Your task to perform on an android device: What's the weather going to be this weekend? Image 0: 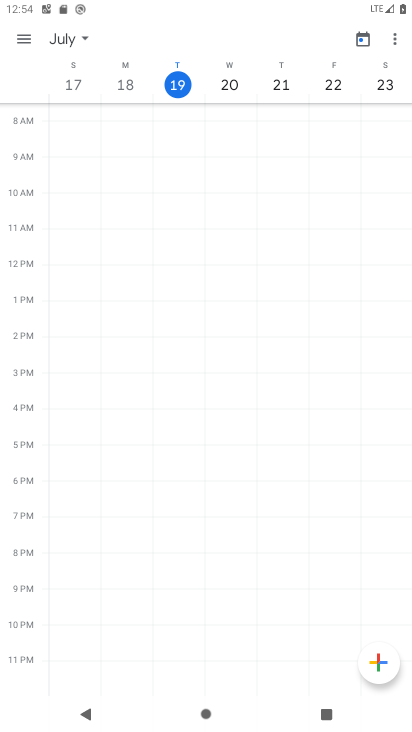
Step 0: press home button
Your task to perform on an android device: What's the weather going to be this weekend? Image 1: 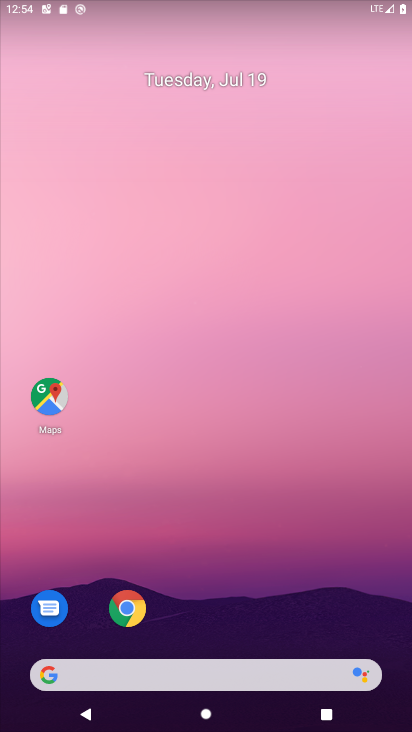
Step 1: drag from (224, 601) to (220, 100)
Your task to perform on an android device: What's the weather going to be this weekend? Image 2: 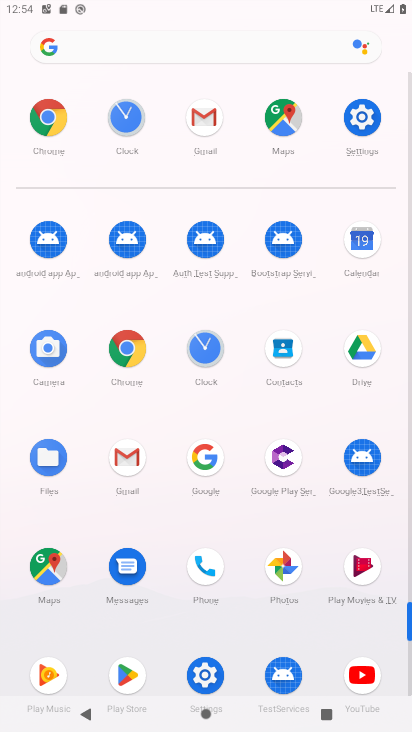
Step 2: click (355, 237)
Your task to perform on an android device: What's the weather going to be this weekend? Image 3: 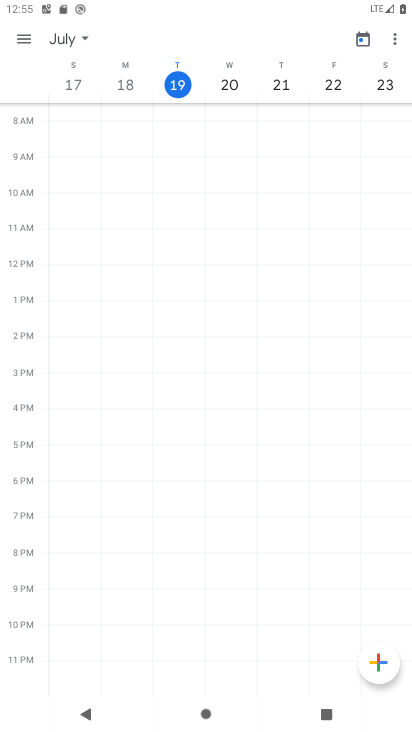
Step 3: press home button
Your task to perform on an android device: What's the weather going to be this weekend? Image 4: 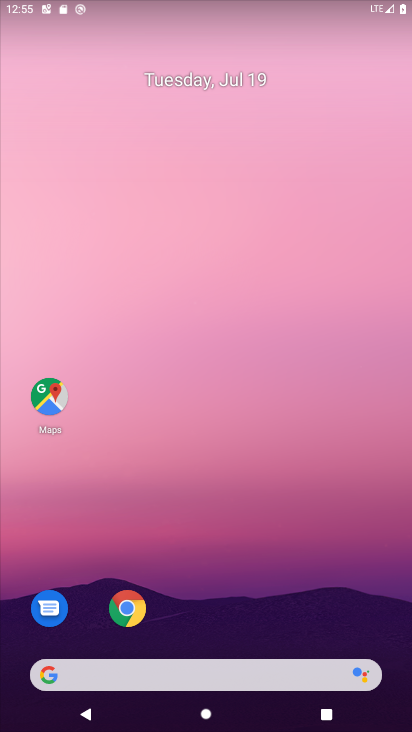
Step 4: drag from (280, 539) to (245, 160)
Your task to perform on an android device: What's the weather going to be this weekend? Image 5: 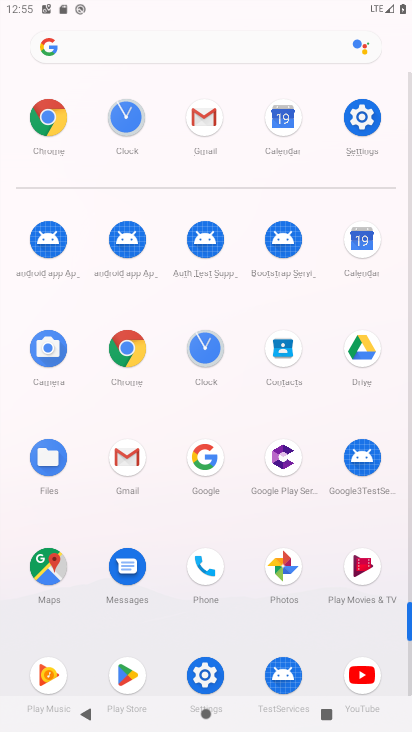
Step 5: click (128, 369)
Your task to perform on an android device: What's the weather going to be this weekend? Image 6: 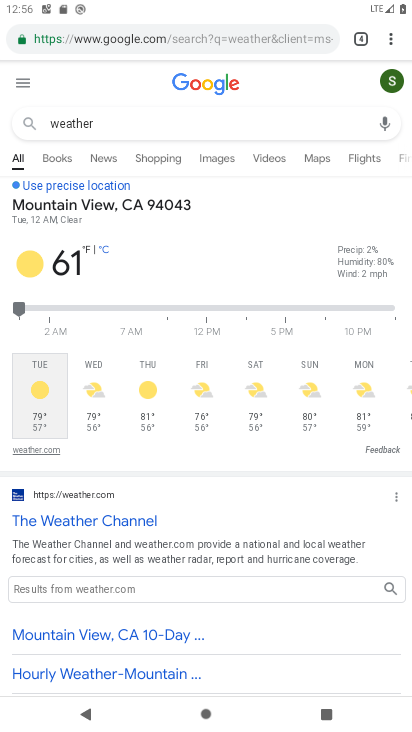
Step 6: task complete